Your task to perform on an android device: Search for seafood restaurants on Google Maps Image 0: 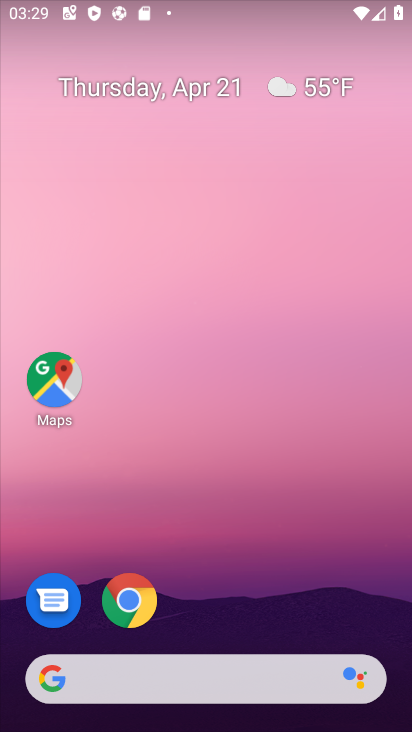
Step 0: drag from (224, 629) to (277, 81)
Your task to perform on an android device: Search for seafood restaurants on Google Maps Image 1: 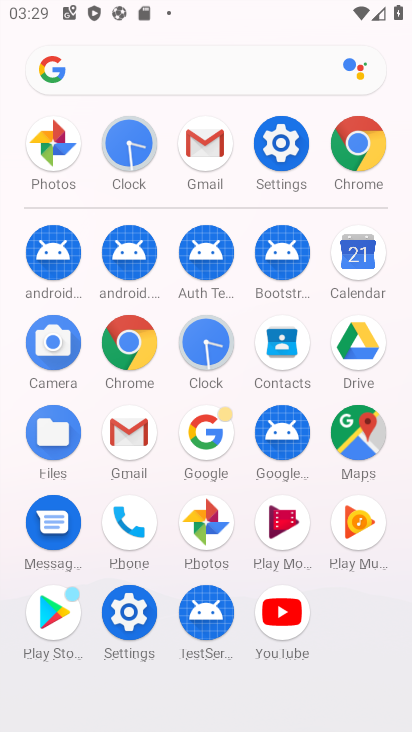
Step 1: click (358, 438)
Your task to perform on an android device: Search for seafood restaurants on Google Maps Image 2: 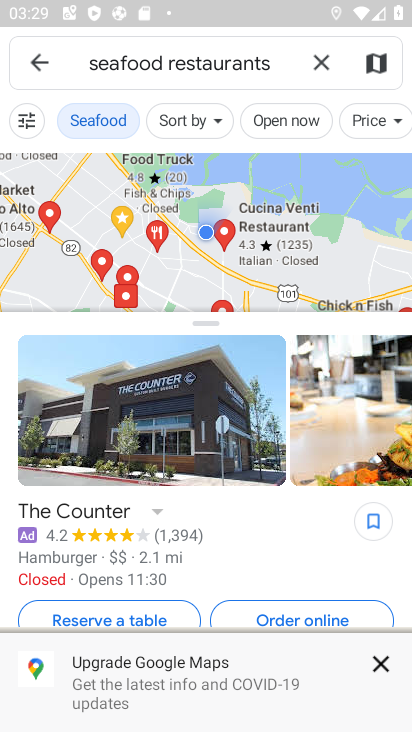
Step 2: task complete